Your task to perform on an android device: Add "macbook pro 15 inch" to the cart on ebay Image 0: 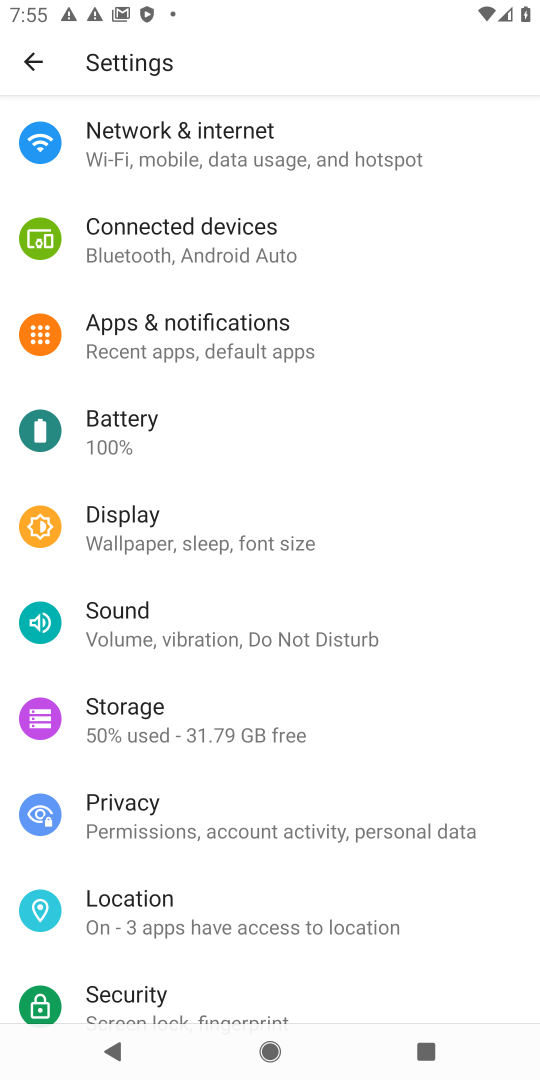
Step 0: press home button
Your task to perform on an android device: Add "macbook pro 15 inch" to the cart on ebay Image 1: 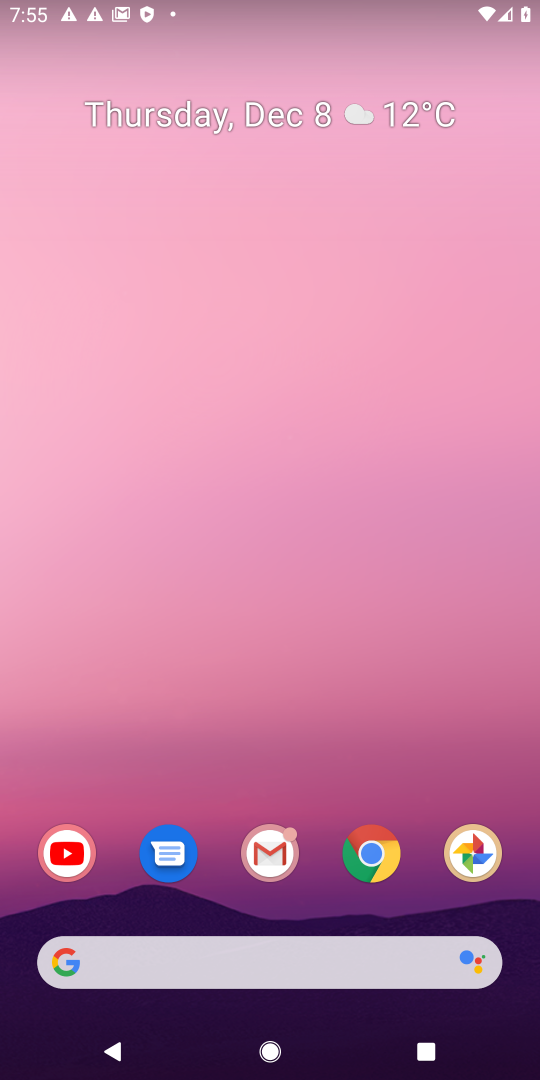
Step 1: click (152, 965)
Your task to perform on an android device: Add "macbook pro 15 inch" to the cart on ebay Image 2: 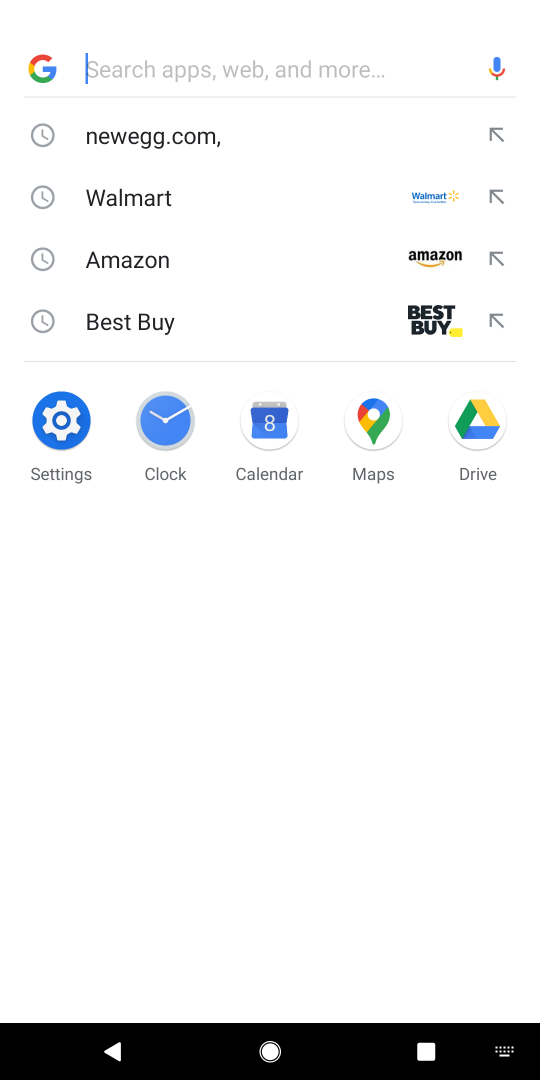
Step 2: type "ebay"
Your task to perform on an android device: Add "macbook pro 15 inch" to the cart on ebay Image 3: 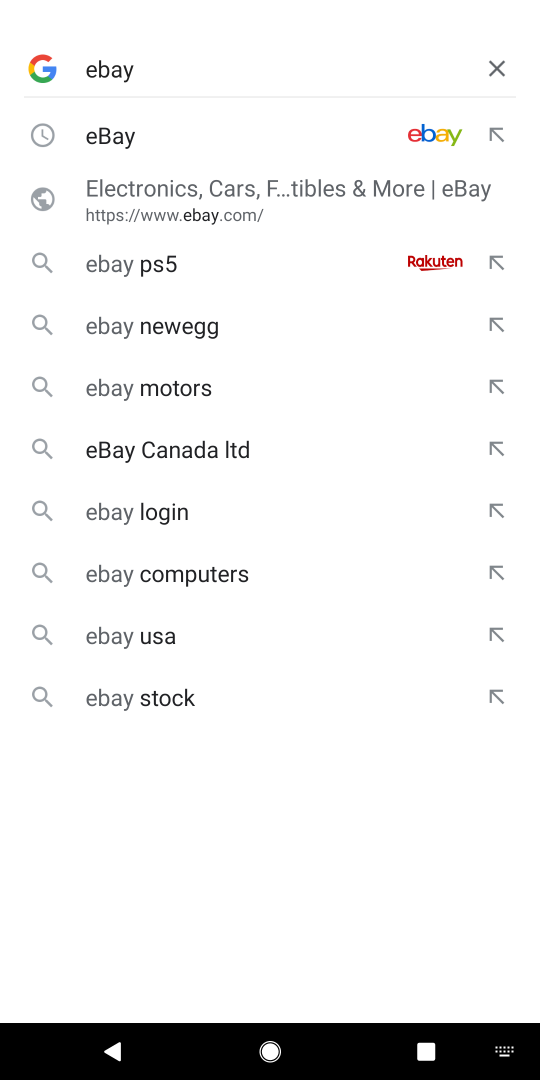
Step 3: click (132, 131)
Your task to perform on an android device: Add "macbook pro 15 inch" to the cart on ebay Image 4: 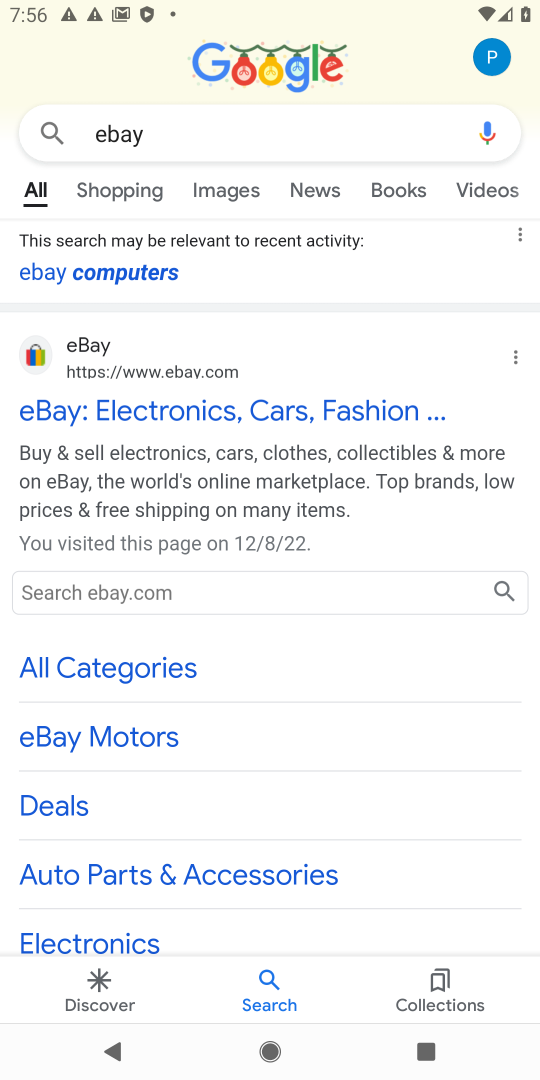
Step 4: click (197, 405)
Your task to perform on an android device: Add "macbook pro 15 inch" to the cart on ebay Image 5: 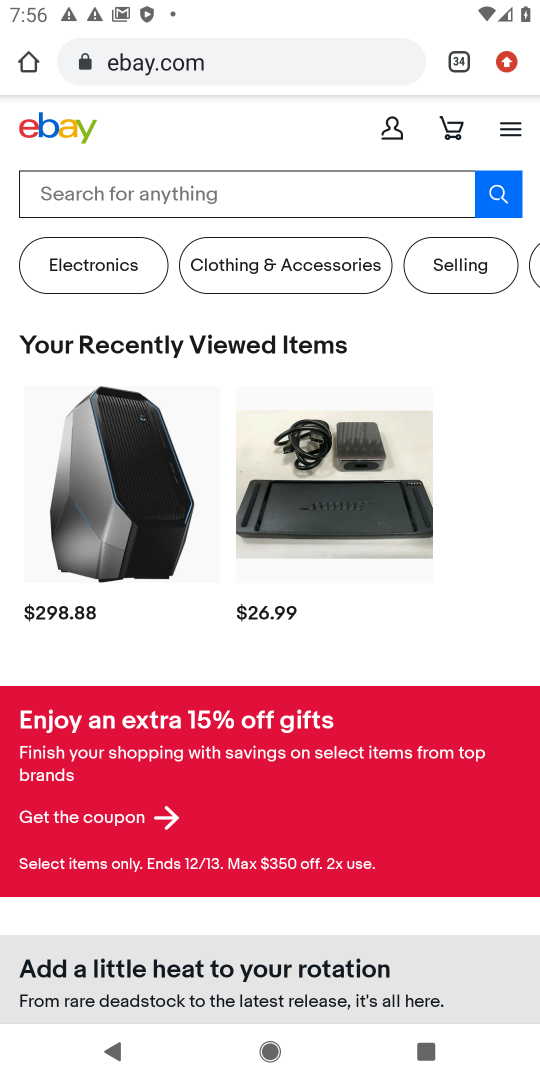
Step 5: click (183, 185)
Your task to perform on an android device: Add "macbook pro 15 inch" to the cart on ebay Image 6: 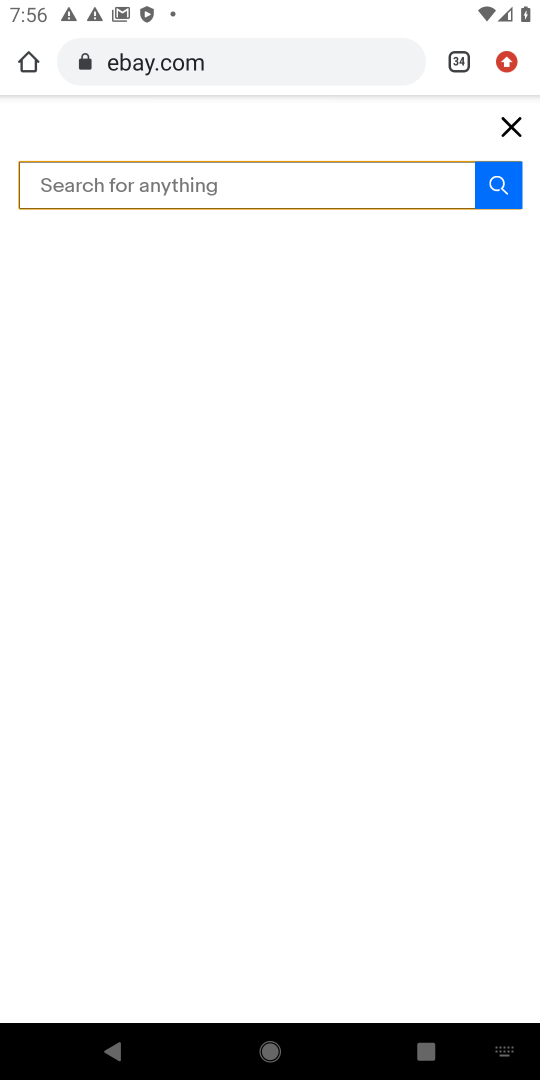
Step 6: type "macbook pro 15 inch"
Your task to perform on an android device: Add "macbook pro 15 inch" to the cart on ebay Image 7: 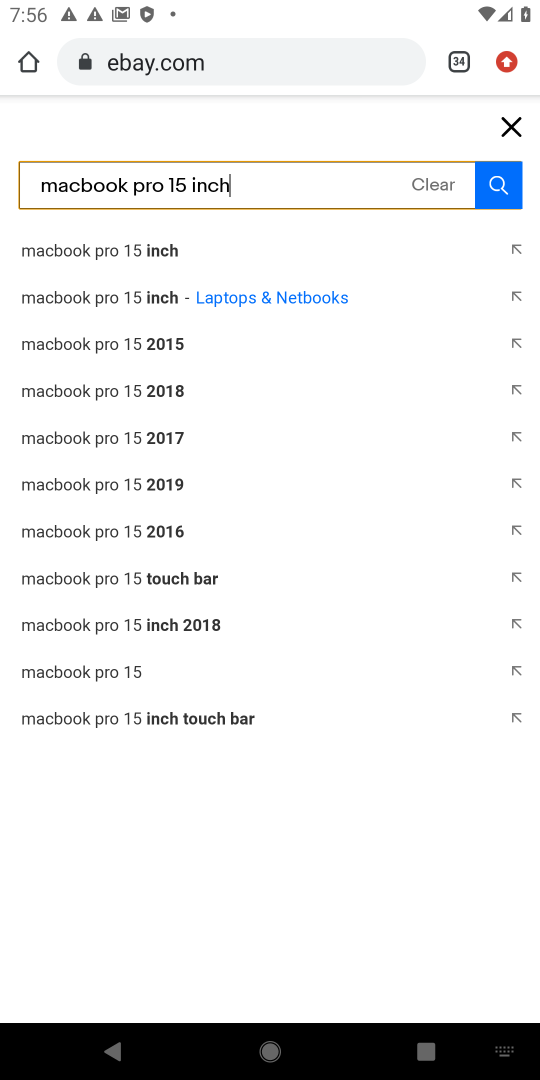
Step 7: click (126, 251)
Your task to perform on an android device: Add "macbook pro 15 inch" to the cart on ebay Image 8: 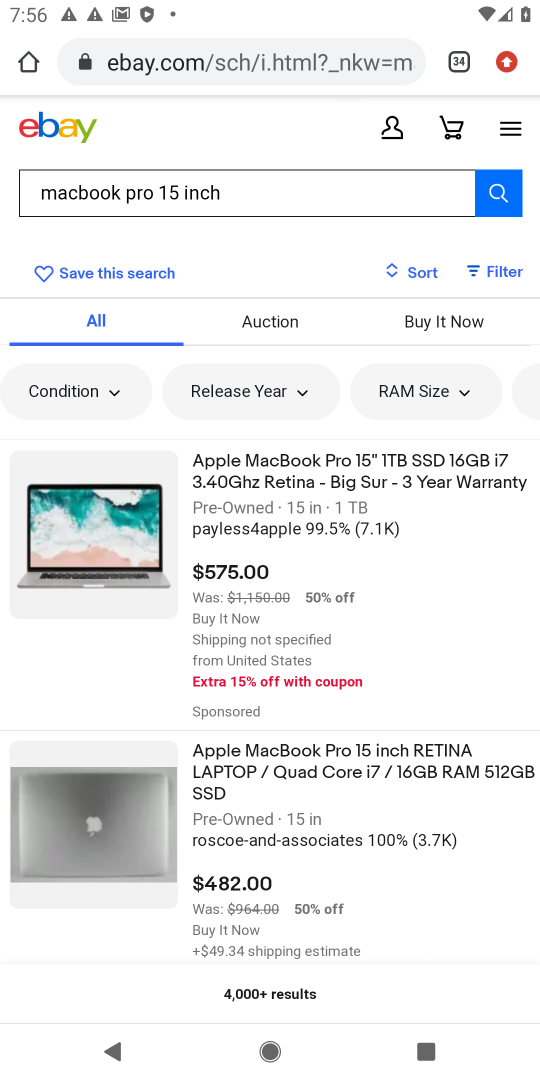
Step 8: click (302, 484)
Your task to perform on an android device: Add "macbook pro 15 inch" to the cart on ebay Image 9: 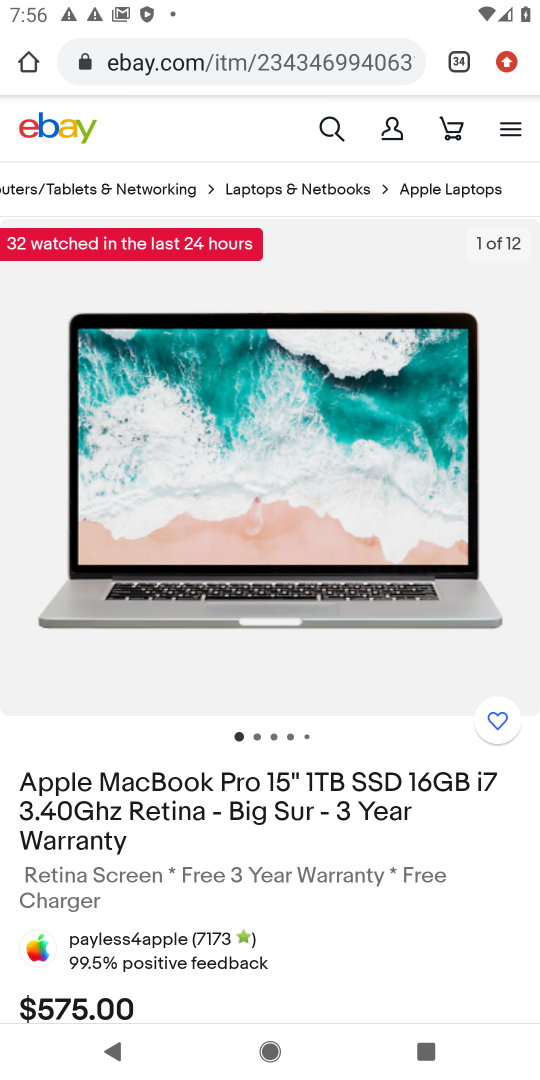
Step 9: drag from (337, 702) to (306, 380)
Your task to perform on an android device: Add "macbook pro 15 inch" to the cart on ebay Image 10: 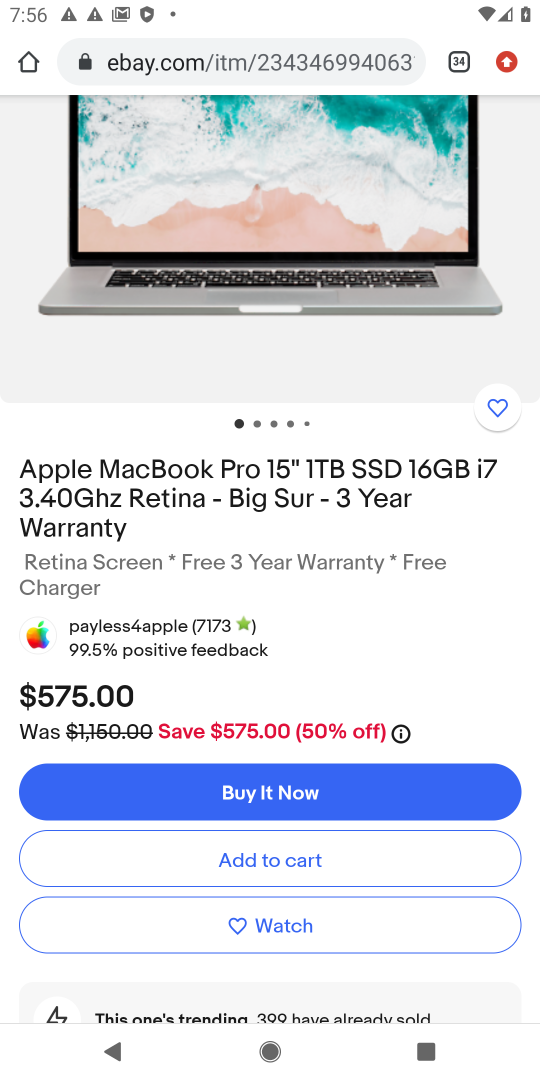
Step 10: click (316, 860)
Your task to perform on an android device: Add "macbook pro 15 inch" to the cart on ebay Image 11: 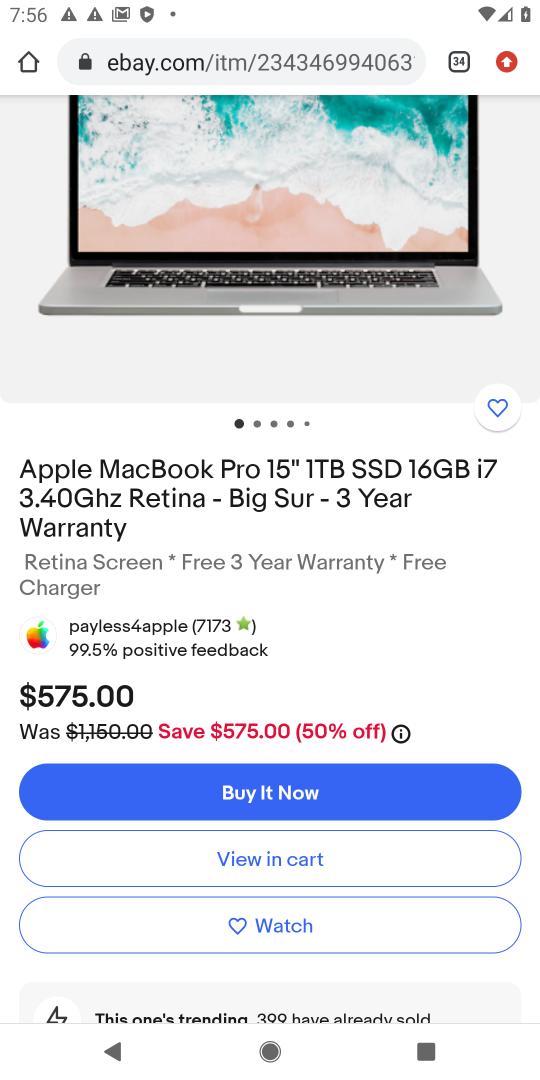
Step 11: task complete